Your task to perform on an android device: delete a single message in the gmail app Image 0: 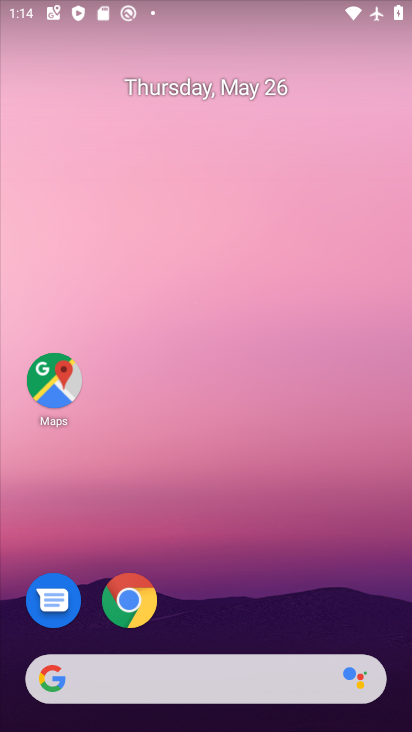
Step 0: drag from (245, 626) to (292, 128)
Your task to perform on an android device: delete a single message in the gmail app Image 1: 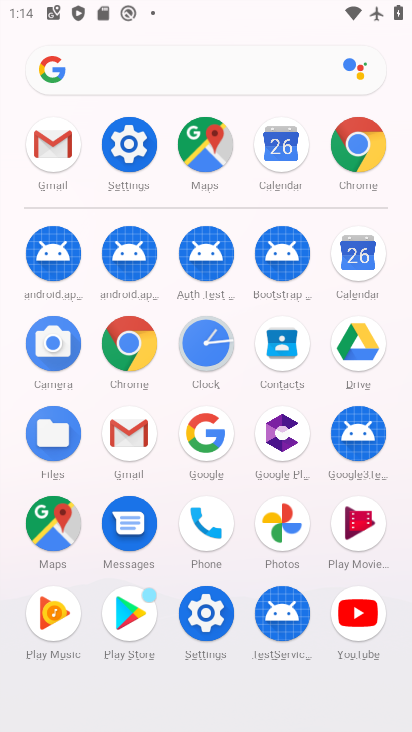
Step 1: click (66, 138)
Your task to perform on an android device: delete a single message in the gmail app Image 2: 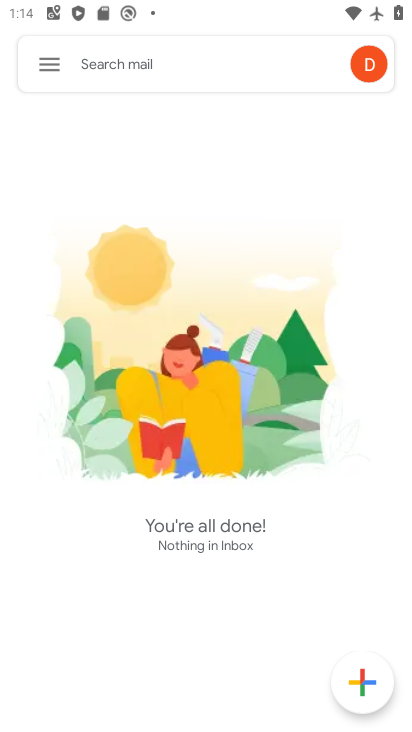
Step 2: click (51, 61)
Your task to perform on an android device: delete a single message in the gmail app Image 3: 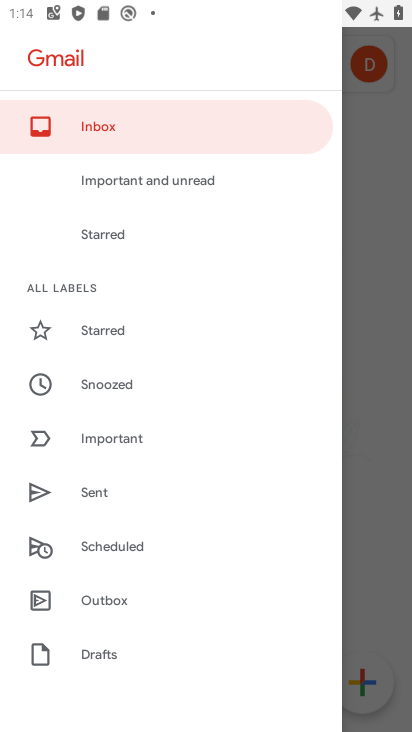
Step 3: drag from (128, 581) to (236, 132)
Your task to perform on an android device: delete a single message in the gmail app Image 4: 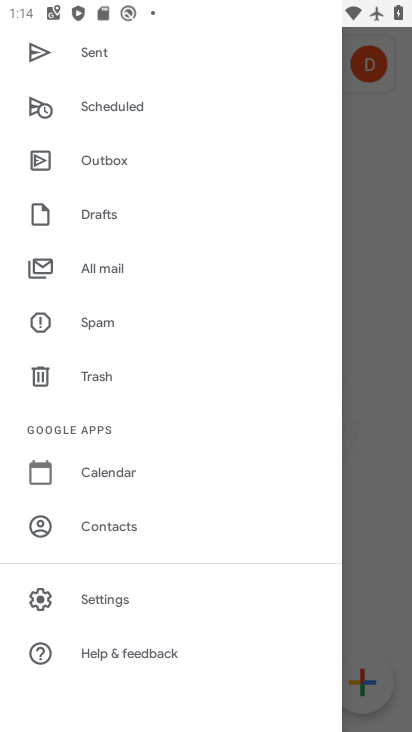
Step 4: click (110, 265)
Your task to perform on an android device: delete a single message in the gmail app Image 5: 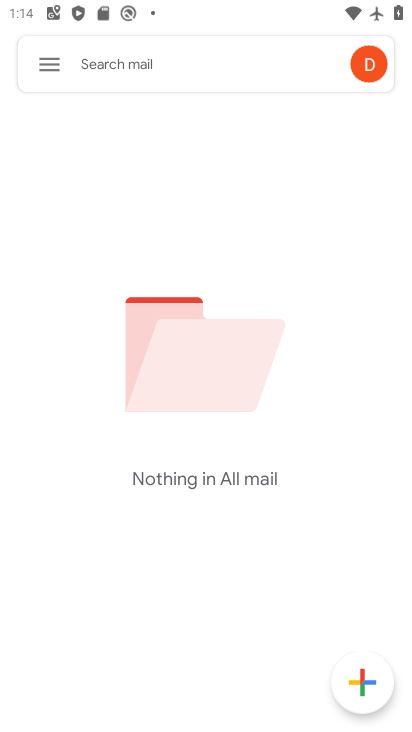
Step 5: task complete